Your task to perform on an android device: allow cookies in the chrome app Image 0: 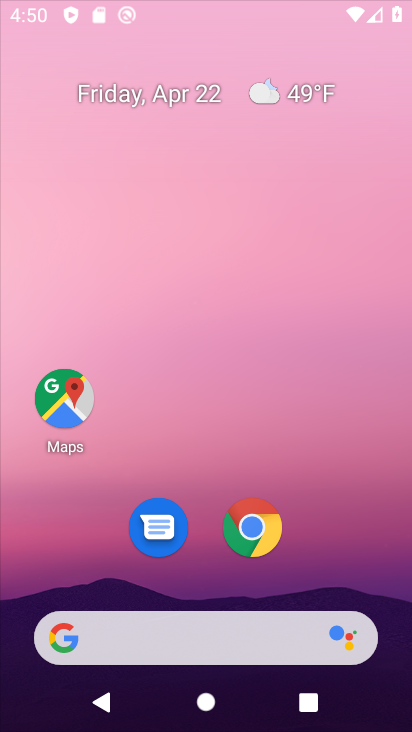
Step 0: click (351, 129)
Your task to perform on an android device: allow cookies in the chrome app Image 1: 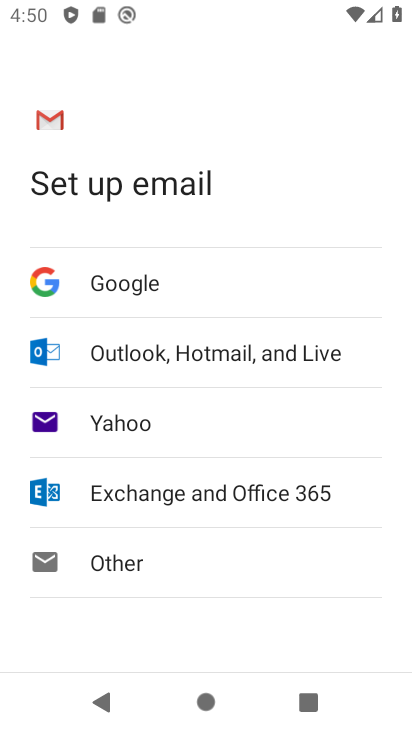
Step 1: drag from (222, 350) to (163, 54)
Your task to perform on an android device: allow cookies in the chrome app Image 2: 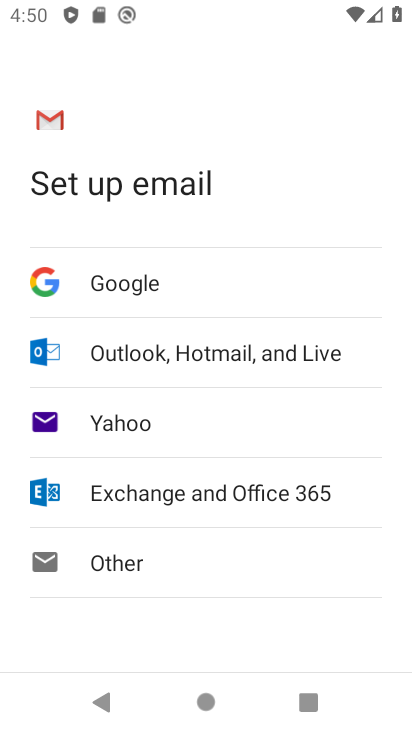
Step 2: press home button
Your task to perform on an android device: allow cookies in the chrome app Image 3: 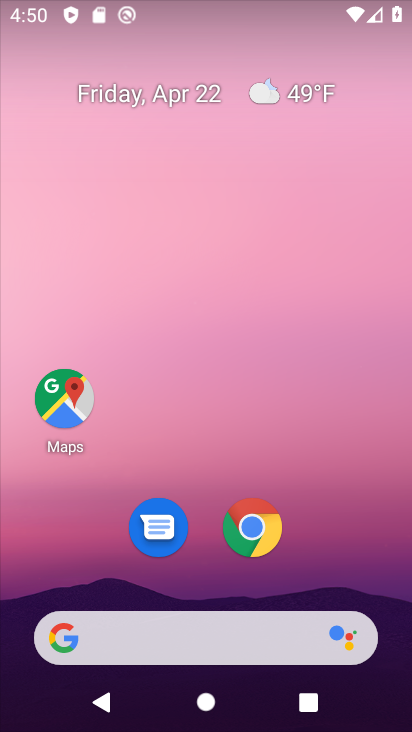
Step 3: drag from (252, 379) to (215, 164)
Your task to perform on an android device: allow cookies in the chrome app Image 4: 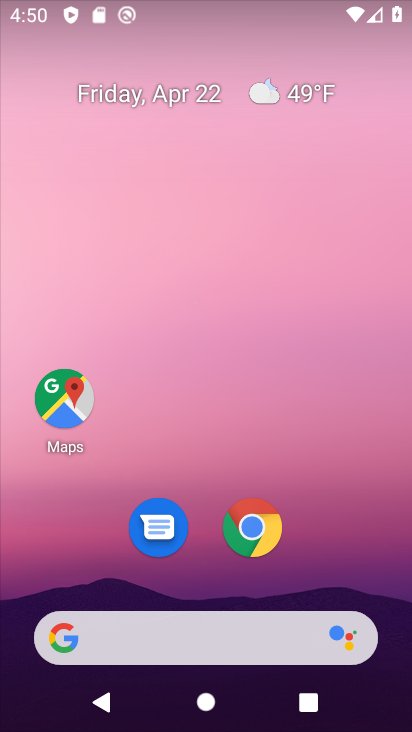
Step 4: drag from (307, 255) to (243, 46)
Your task to perform on an android device: allow cookies in the chrome app Image 5: 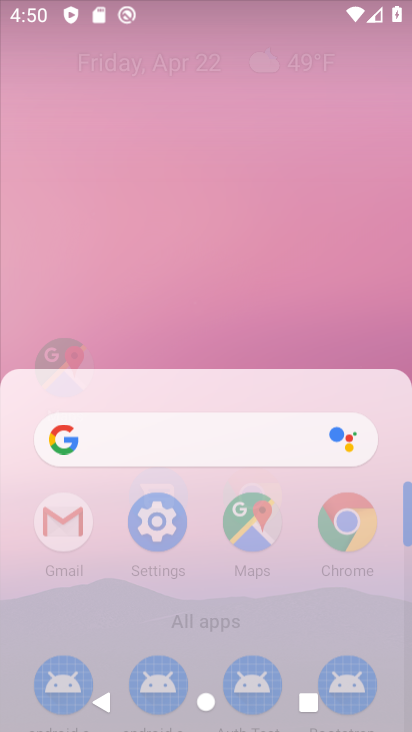
Step 5: drag from (319, 467) to (144, 22)
Your task to perform on an android device: allow cookies in the chrome app Image 6: 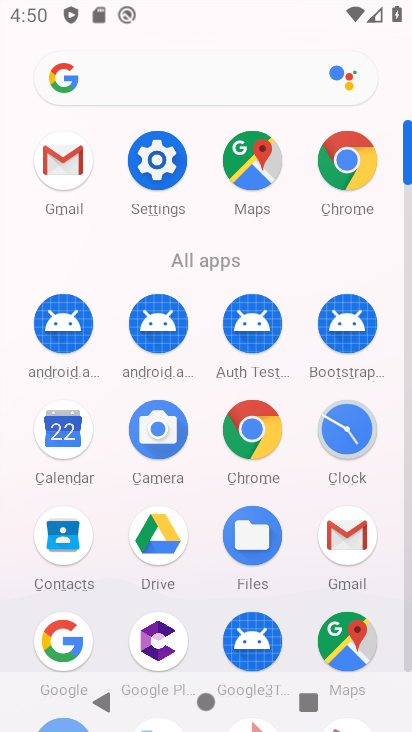
Step 6: drag from (213, 325) to (86, 16)
Your task to perform on an android device: allow cookies in the chrome app Image 7: 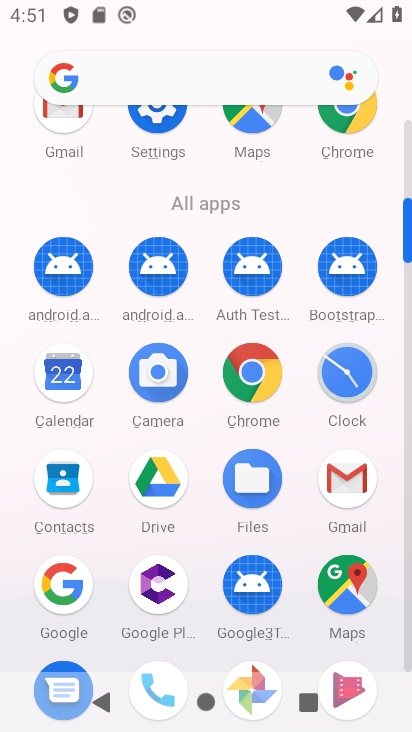
Step 7: click (243, 359)
Your task to perform on an android device: allow cookies in the chrome app Image 8: 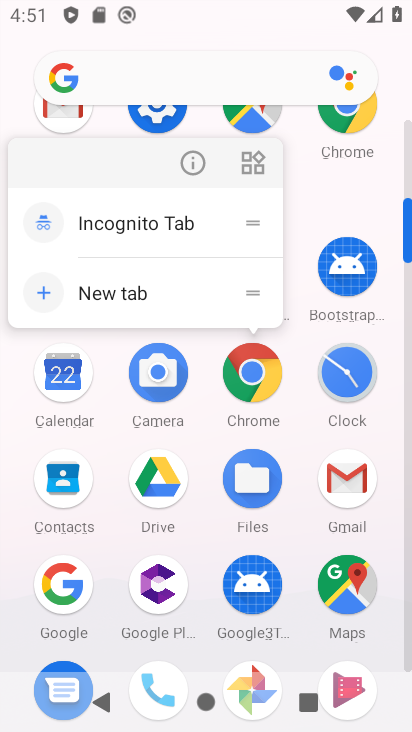
Step 8: click (245, 379)
Your task to perform on an android device: allow cookies in the chrome app Image 9: 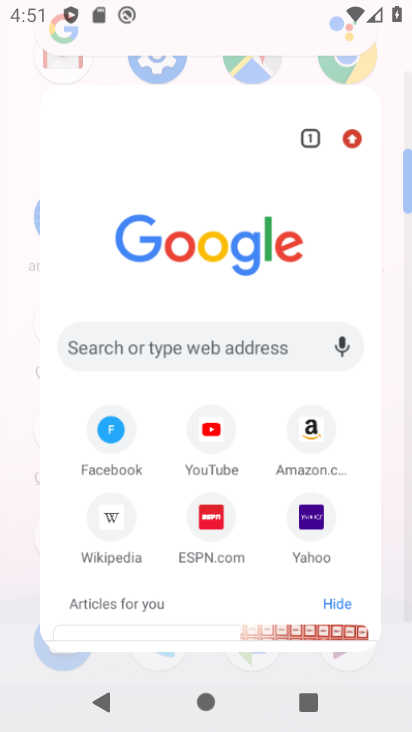
Step 9: click (245, 379)
Your task to perform on an android device: allow cookies in the chrome app Image 10: 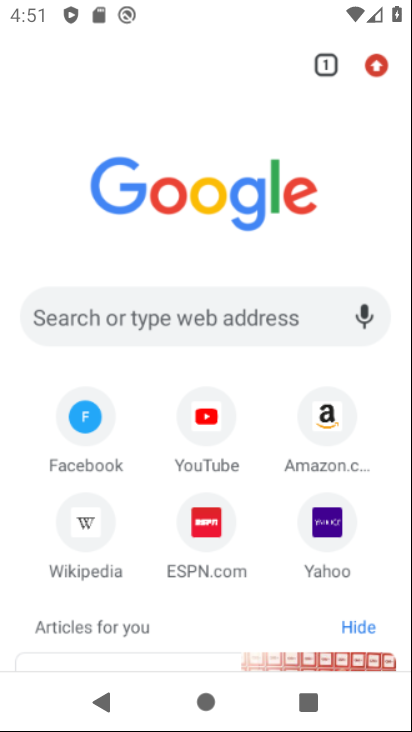
Step 10: click (230, 386)
Your task to perform on an android device: allow cookies in the chrome app Image 11: 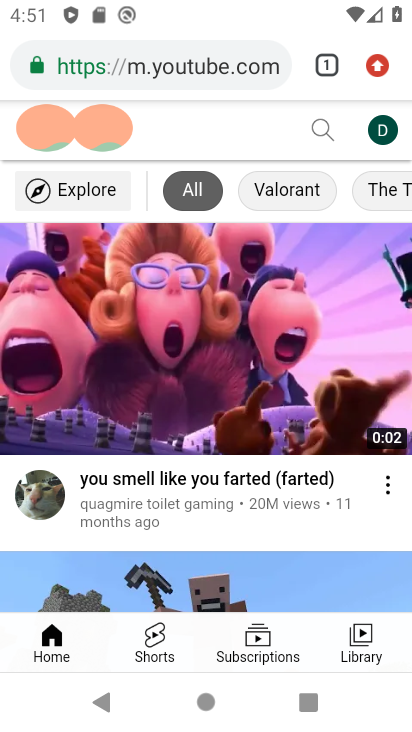
Step 11: drag from (372, 62) to (149, 573)
Your task to perform on an android device: allow cookies in the chrome app Image 12: 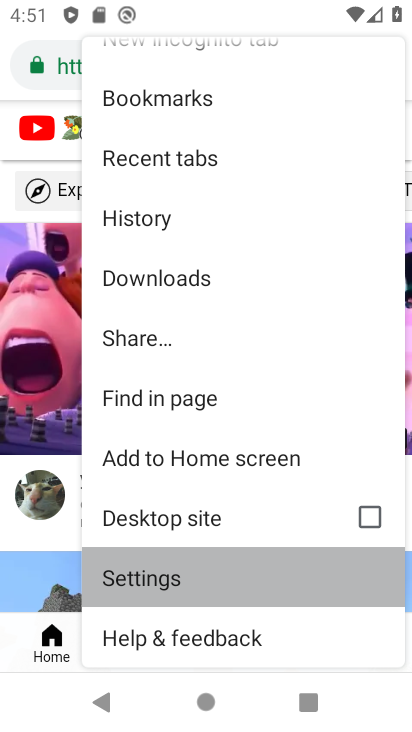
Step 12: click (149, 573)
Your task to perform on an android device: allow cookies in the chrome app Image 13: 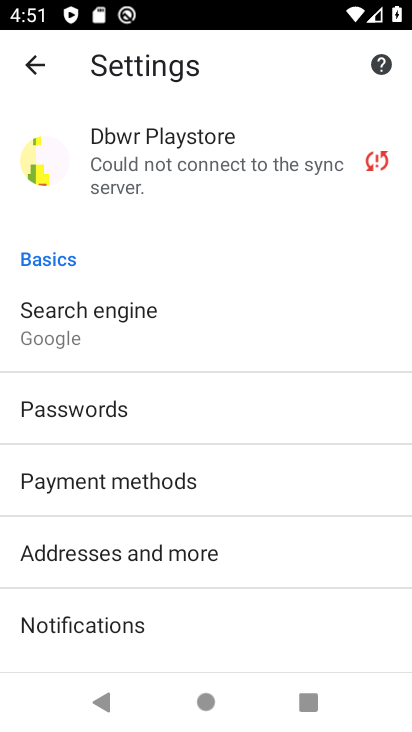
Step 13: click (109, 301)
Your task to perform on an android device: allow cookies in the chrome app Image 14: 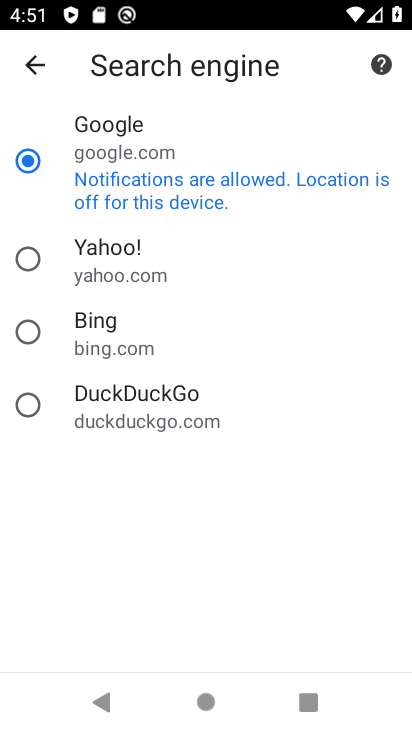
Step 14: click (27, 66)
Your task to perform on an android device: allow cookies in the chrome app Image 15: 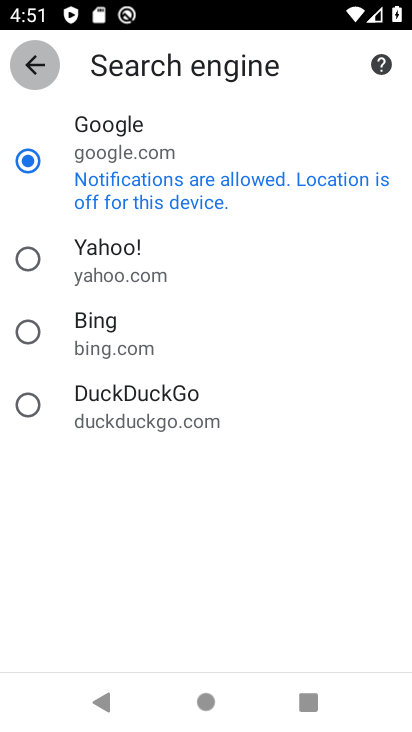
Step 15: click (34, 70)
Your task to perform on an android device: allow cookies in the chrome app Image 16: 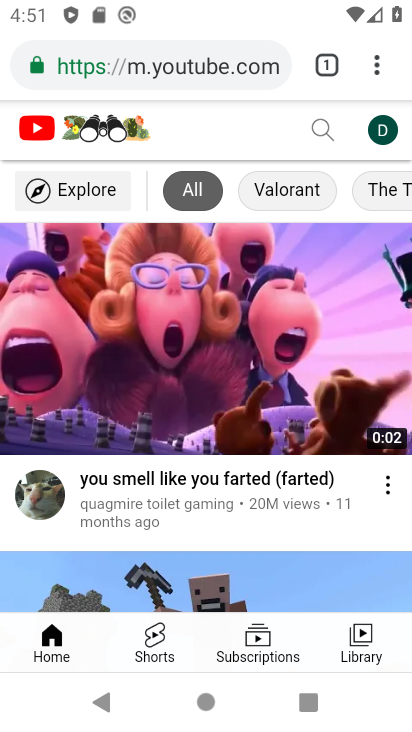
Step 16: click (378, 67)
Your task to perform on an android device: allow cookies in the chrome app Image 17: 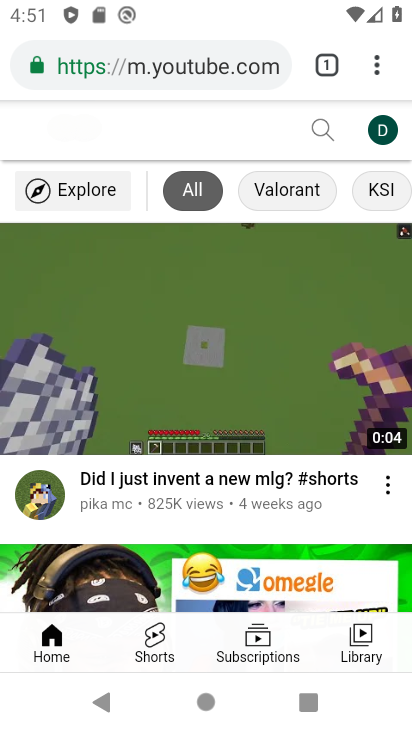
Step 17: drag from (374, 73) to (149, 583)
Your task to perform on an android device: allow cookies in the chrome app Image 18: 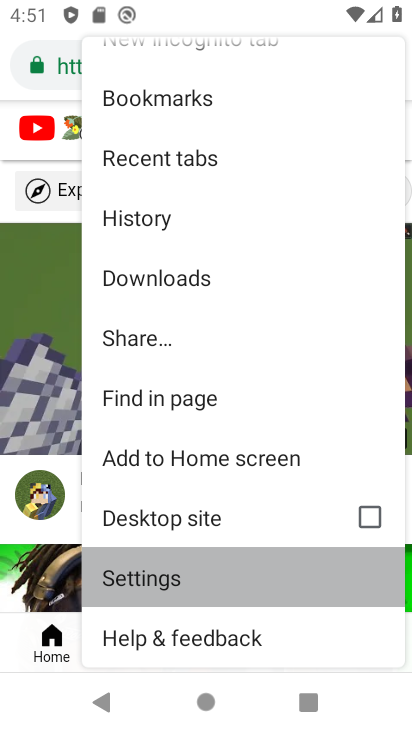
Step 18: click (149, 583)
Your task to perform on an android device: allow cookies in the chrome app Image 19: 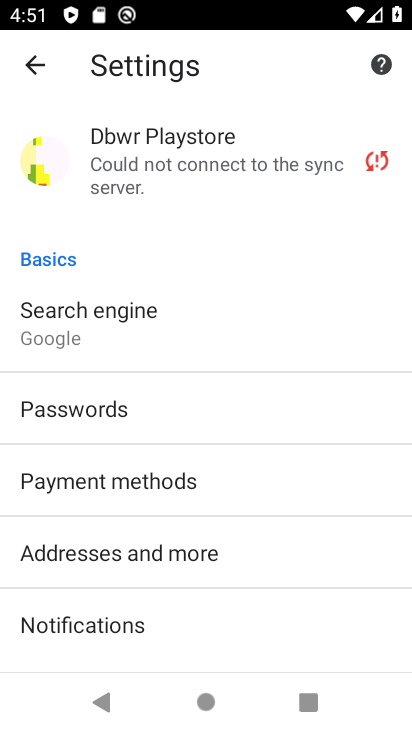
Step 19: drag from (170, 434) to (168, 152)
Your task to perform on an android device: allow cookies in the chrome app Image 20: 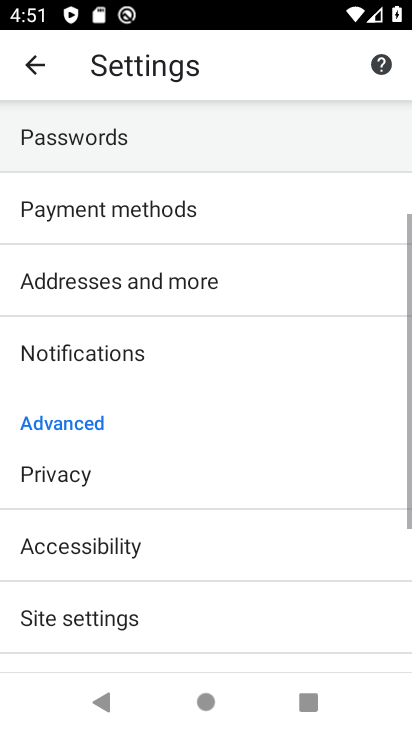
Step 20: drag from (193, 488) to (194, 116)
Your task to perform on an android device: allow cookies in the chrome app Image 21: 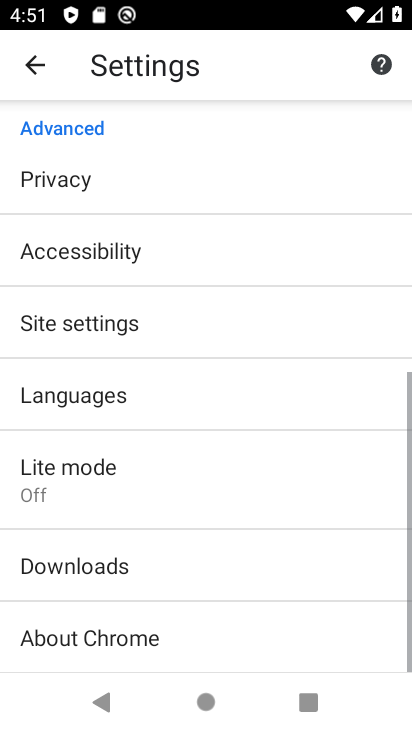
Step 21: drag from (213, 401) to (178, 146)
Your task to perform on an android device: allow cookies in the chrome app Image 22: 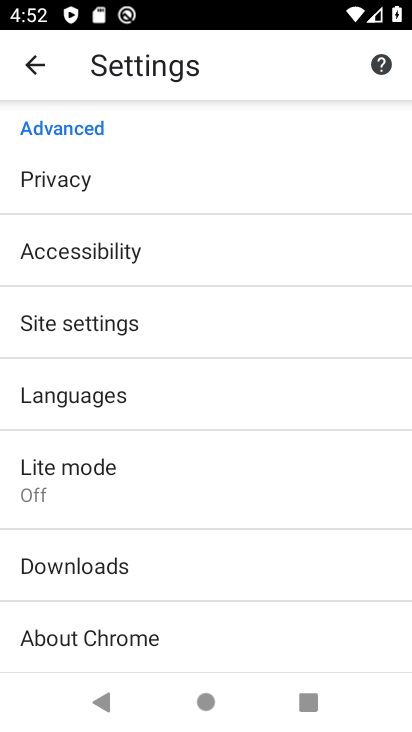
Step 22: click (83, 326)
Your task to perform on an android device: allow cookies in the chrome app Image 23: 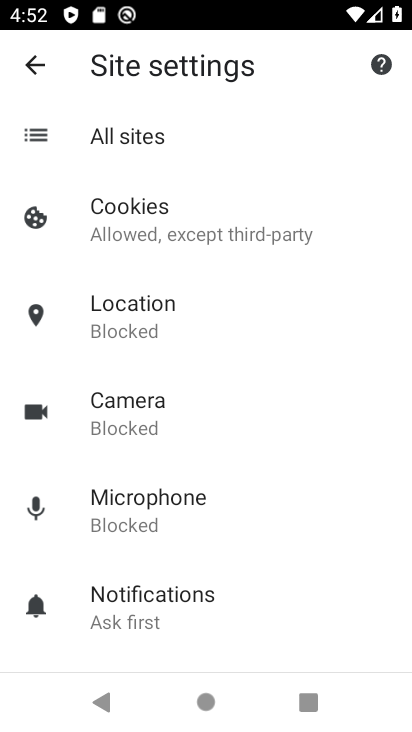
Step 23: click (124, 239)
Your task to perform on an android device: allow cookies in the chrome app Image 24: 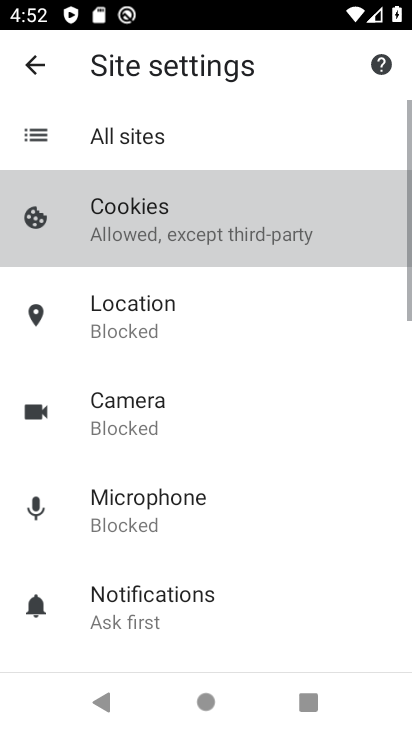
Step 24: click (124, 239)
Your task to perform on an android device: allow cookies in the chrome app Image 25: 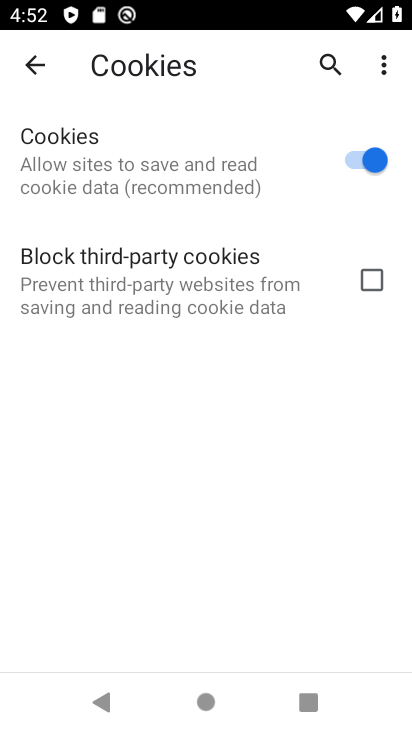
Step 25: task complete